Your task to perform on an android device: turn off airplane mode Image 0: 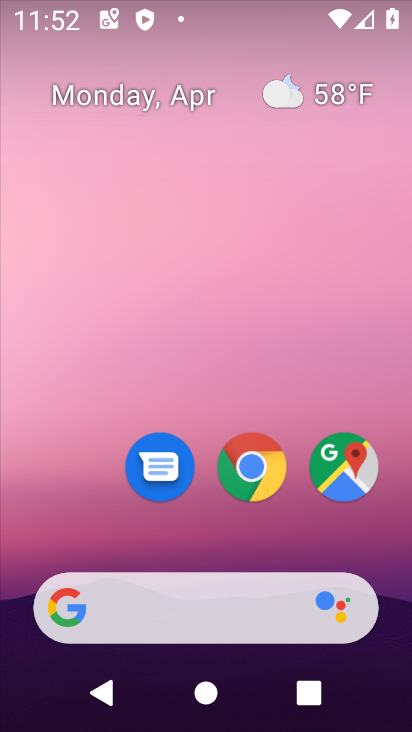
Step 0: drag from (222, 8) to (103, 618)
Your task to perform on an android device: turn off airplane mode Image 1: 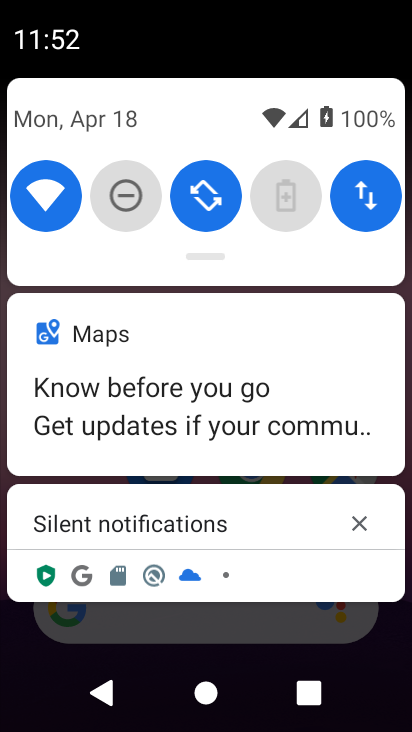
Step 1: task complete